Your task to perform on an android device: Go to CNN.com Image 0: 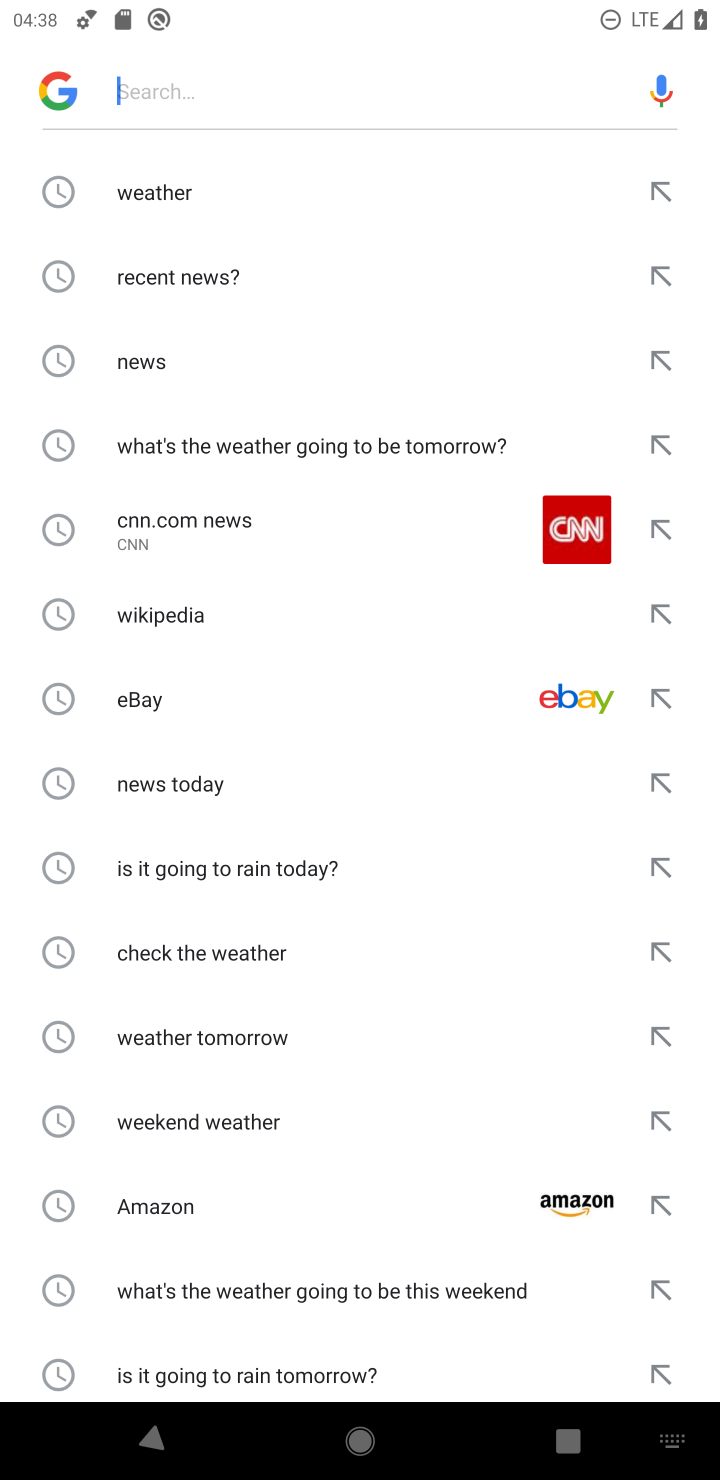
Step 0: press home button
Your task to perform on an android device: Go to CNN.com Image 1: 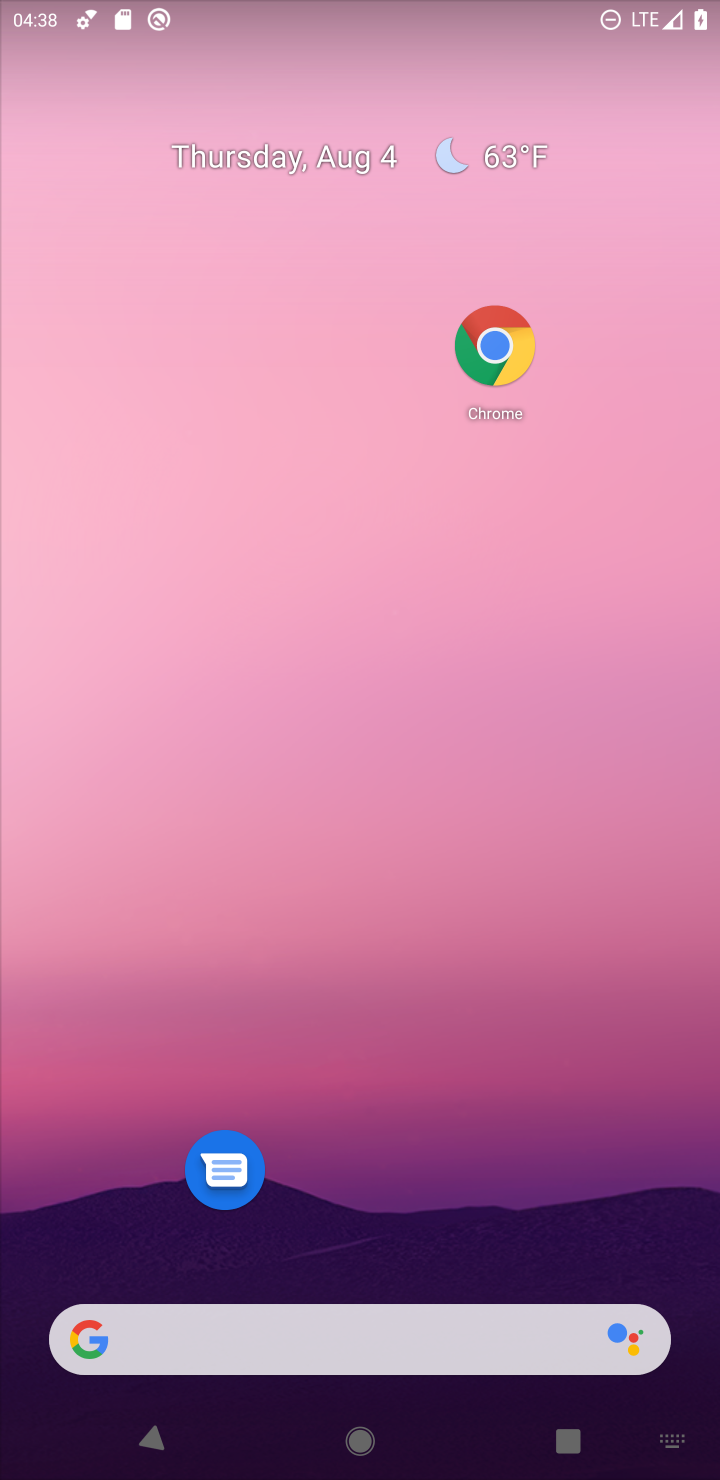
Step 1: click (506, 360)
Your task to perform on an android device: Go to CNN.com Image 2: 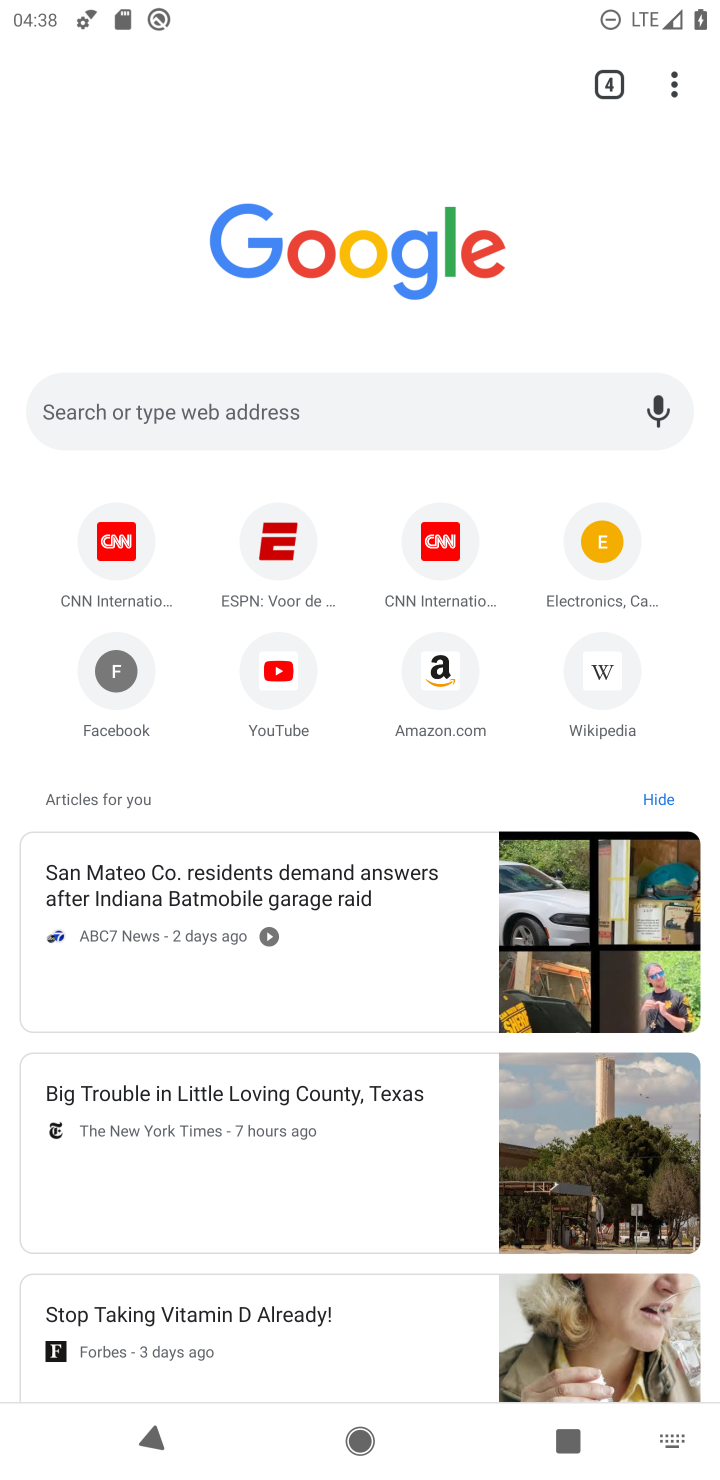
Step 2: click (364, 424)
Your task to perform on an android device: Go to CNN.com Image 3: 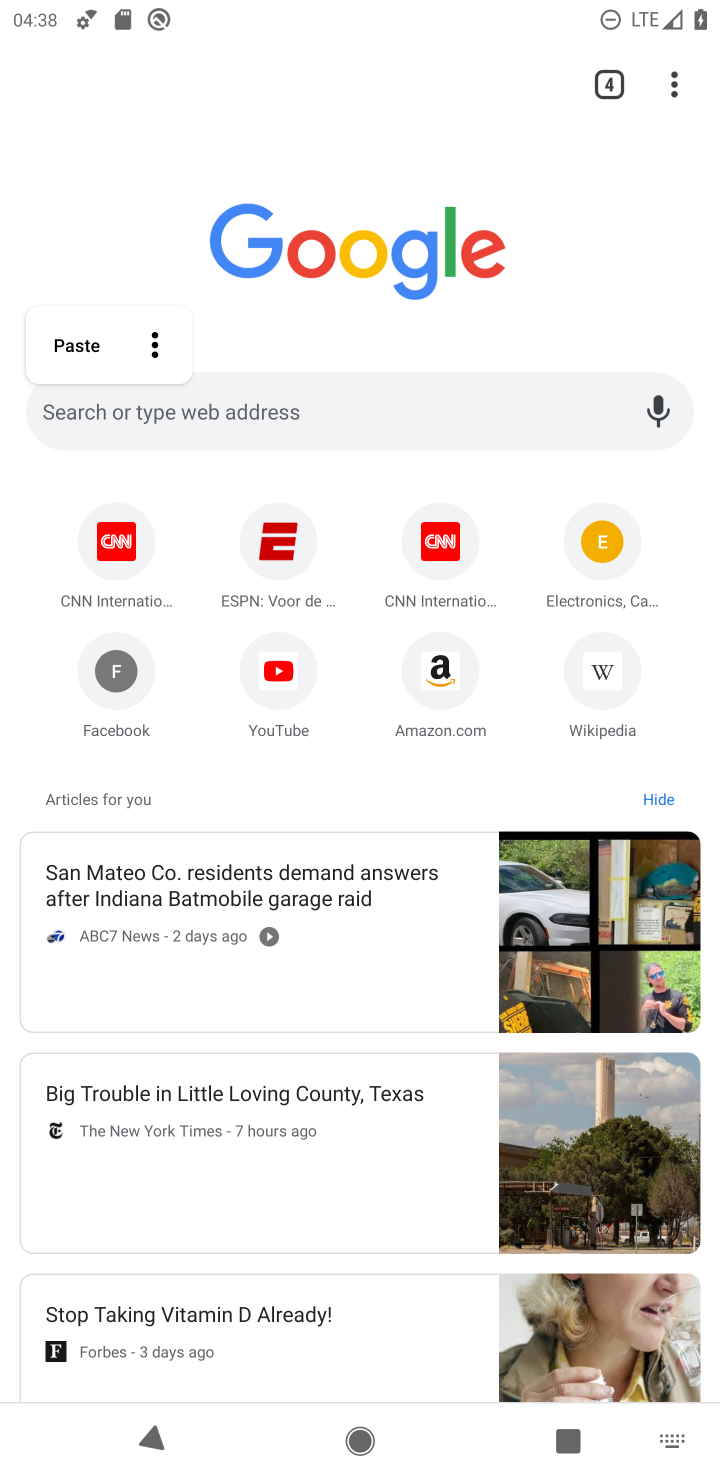
Step 3: type "cnn.com"
Your task to perform on an android device: Go to CNN.com Image 4: 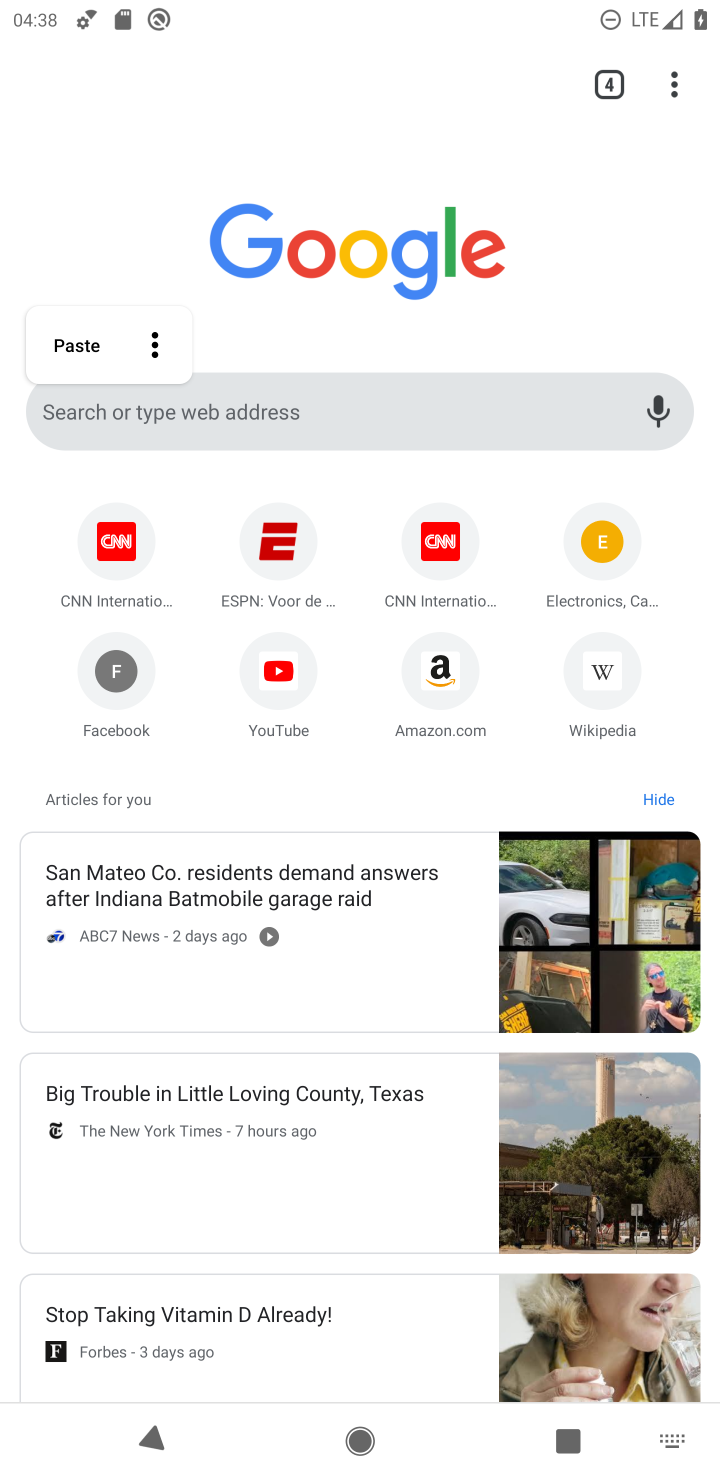
Step 4: click (180, 415)
Your task to perform on an android device: Go to CNN.com Image 5: 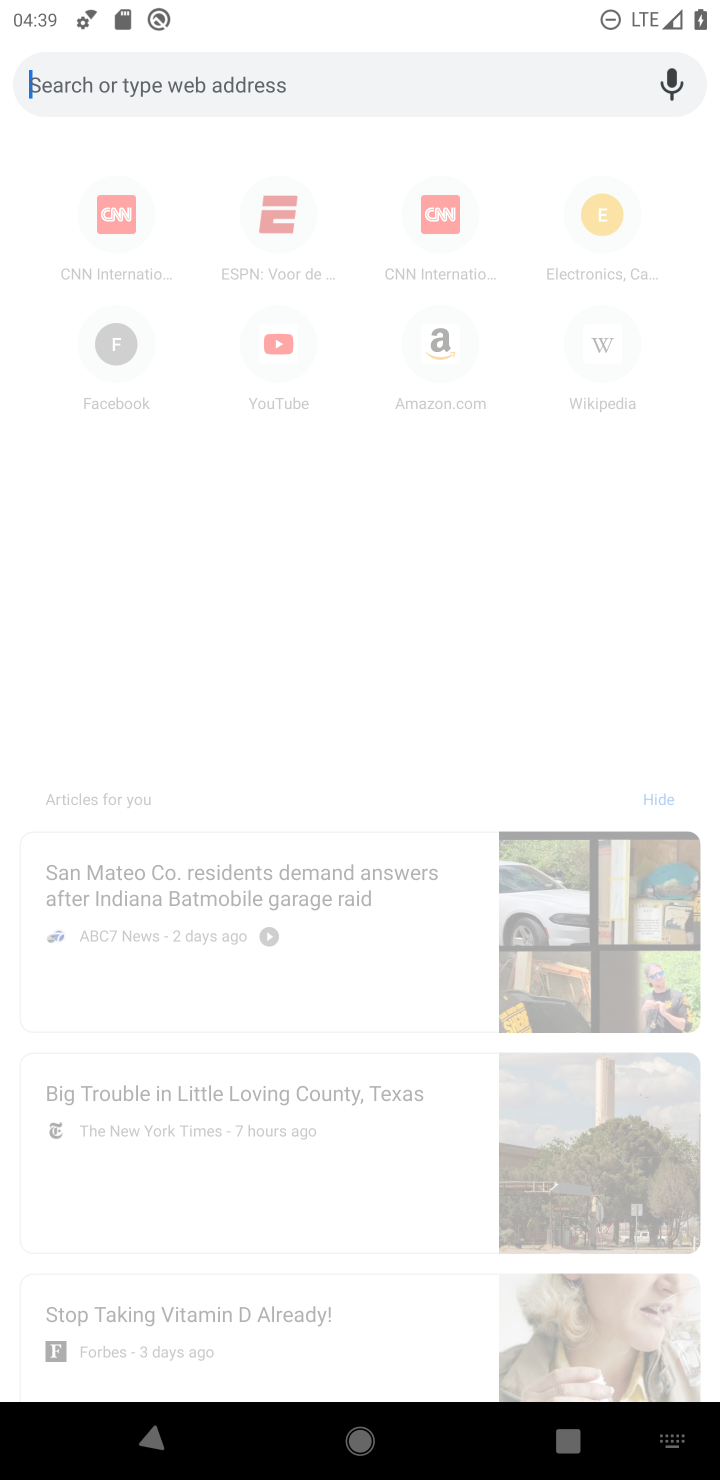
Step 5: type "cnn.com"
Your task to perform on an android device: Go to CNN.com Image 6: 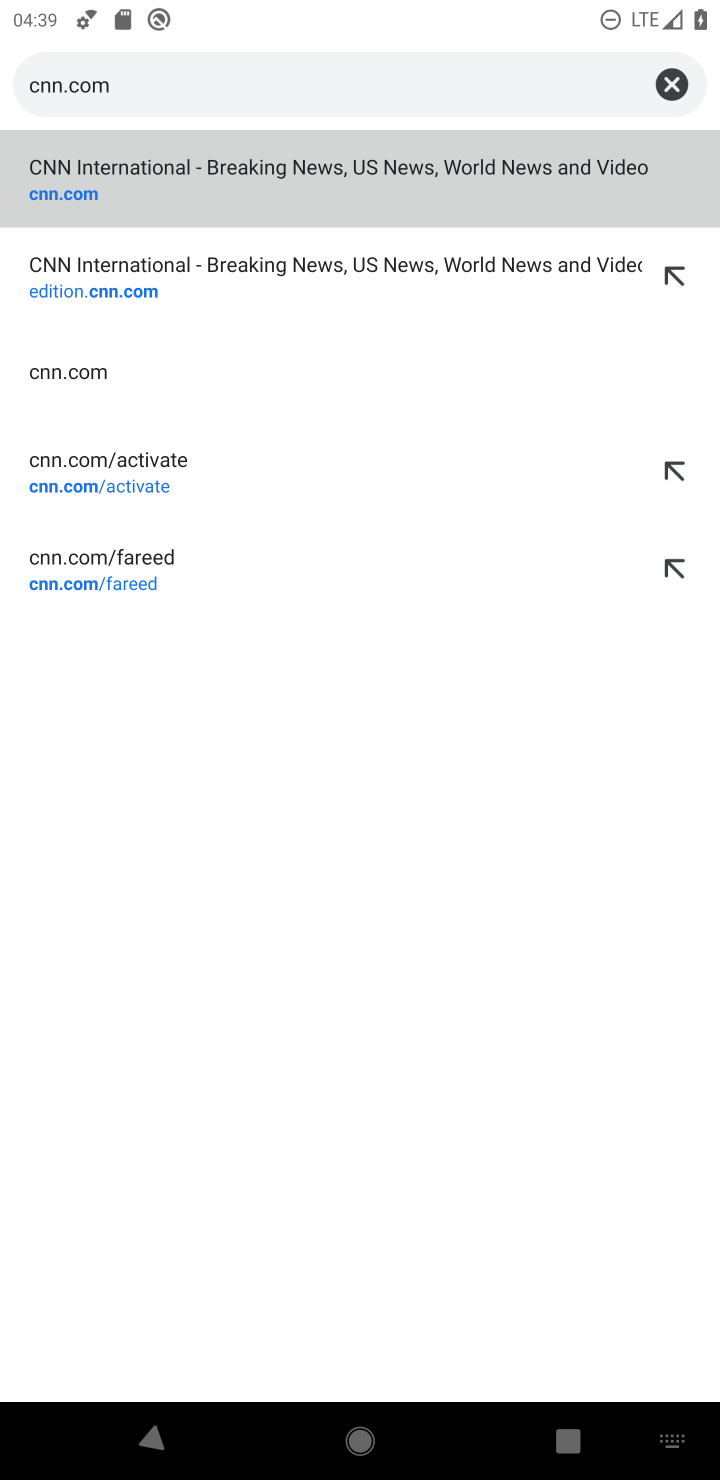
Step 6: click (148, 182)
Your task to perform on an android device: Go to CNN.com Image 7: 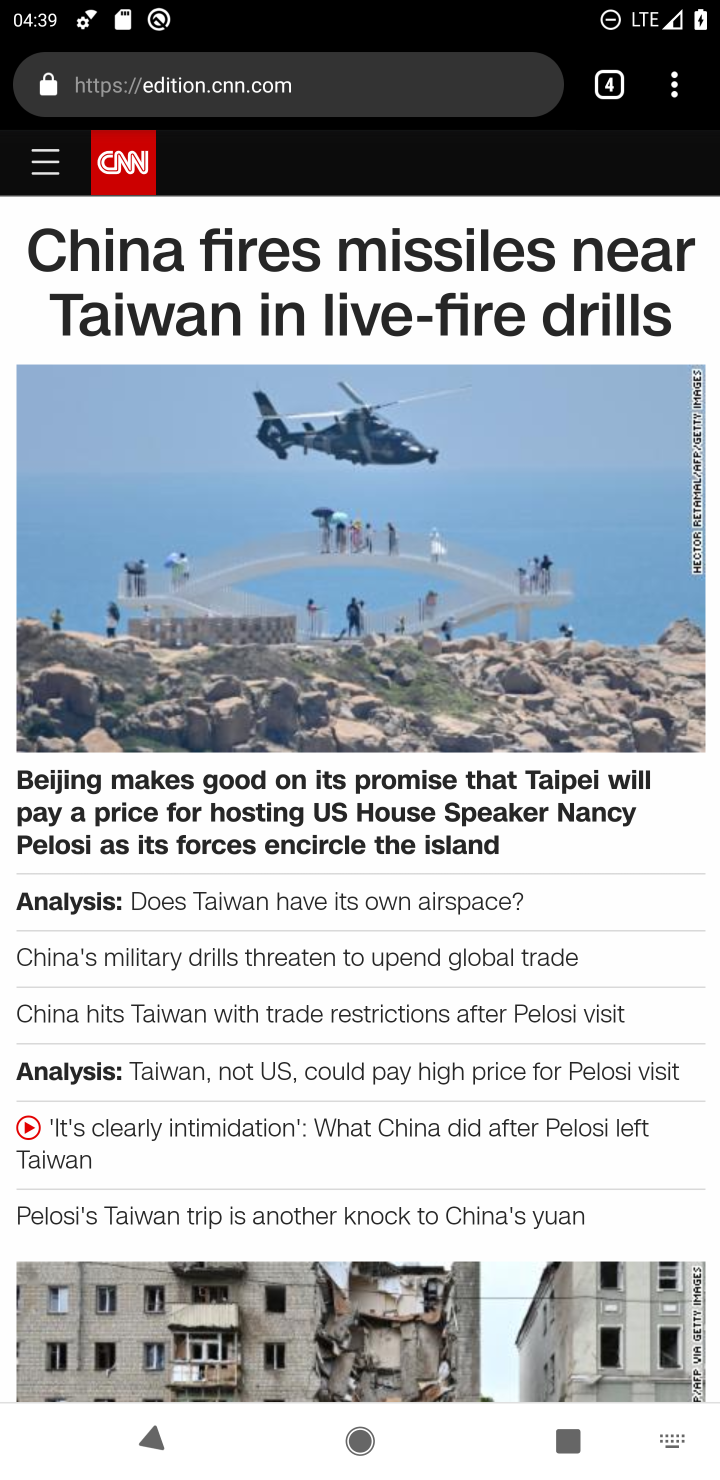
Step 7: task complete